Your task to perform on an android device: Open the calendar and show me this week's events? Image 0: 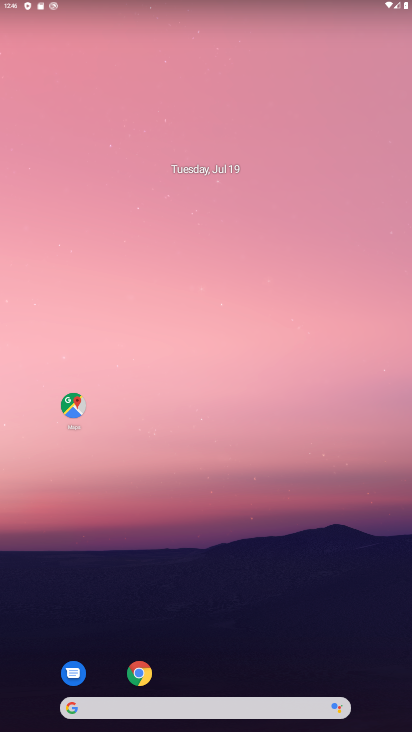
Step 0: drag from (193, 690) to (114, 17)
Your task to perform on an android device: Open the calendar and show me this week's events? Image 1: 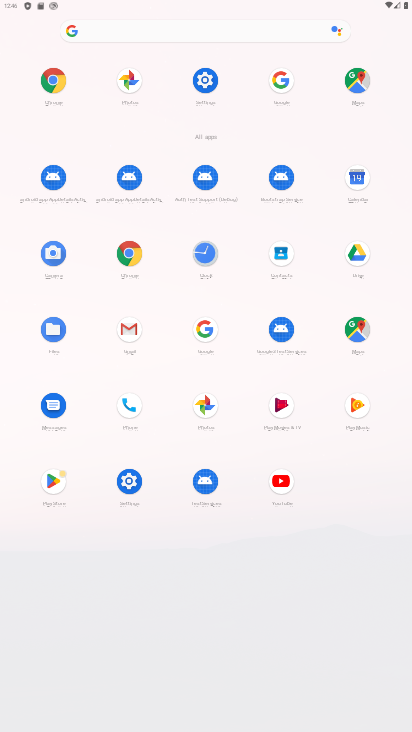
Step 1: click (352, 174)
Your task to perform on an android device: Open the calendar and show me this week's events? Image 2: 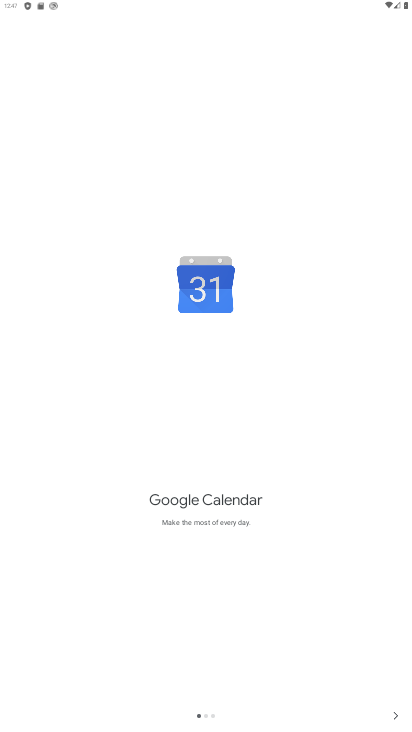
Step 2: click (395, 713)
Your task to perform on an android device: Open the calendar and show me this week's events? Image 3: 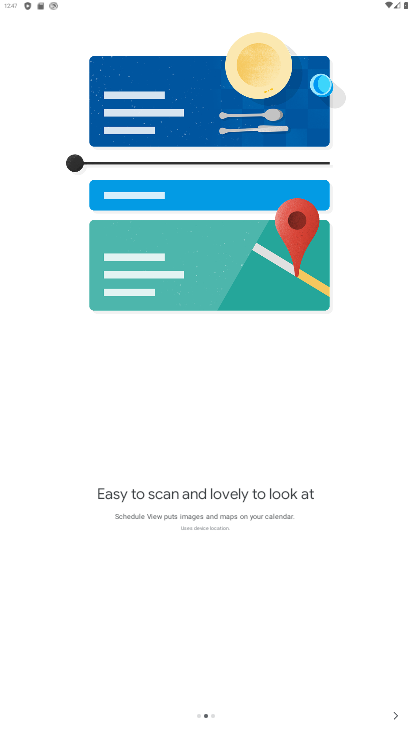
Step 3: click (393, 712)
Your task to perform on an android device: Open the calendar and show me this week's events? Image 4: 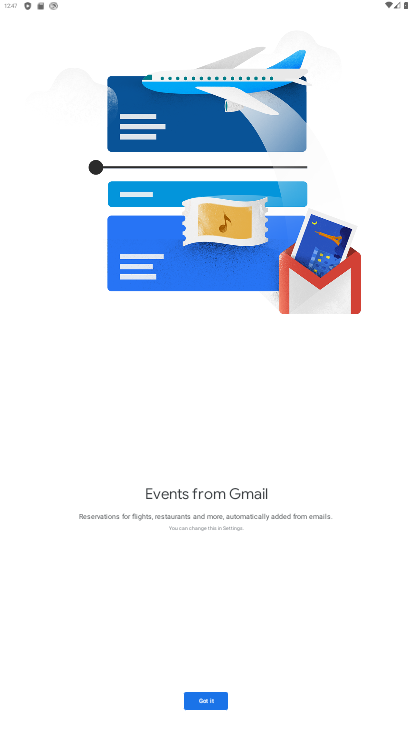
Step 4: click (198, 699)
Your task to perform on an android device: Open the calendar and show me this week's events? Image 5: 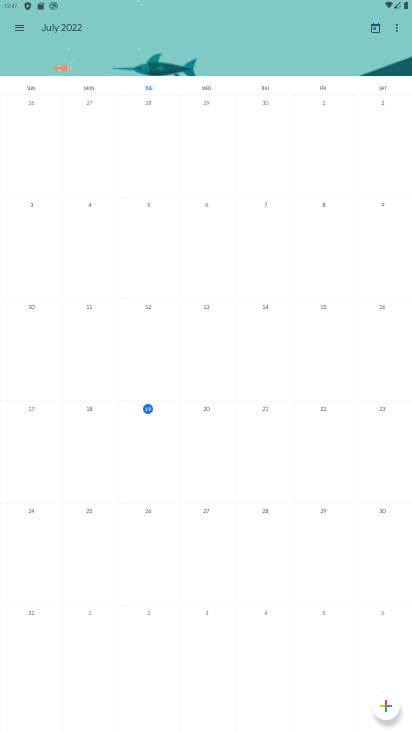
Step 5: click (19, 33)
Your task to perform on an android device: Open the calendar and show me this week's events? Image 6: 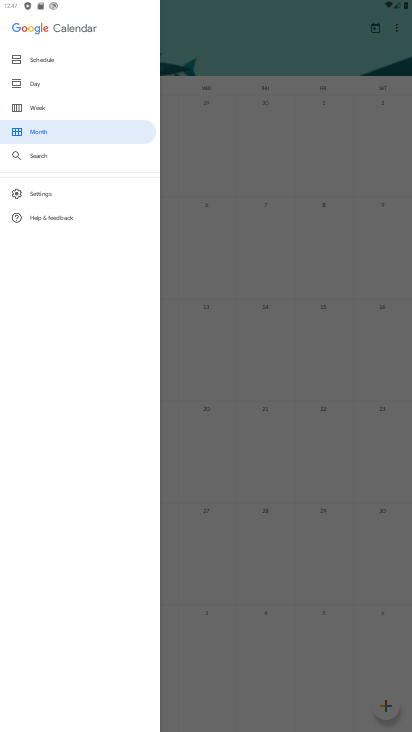
Step 6: click (47, 109)
Your task to perform on an android device: Open the calendar and show me this week's events? Image 7: 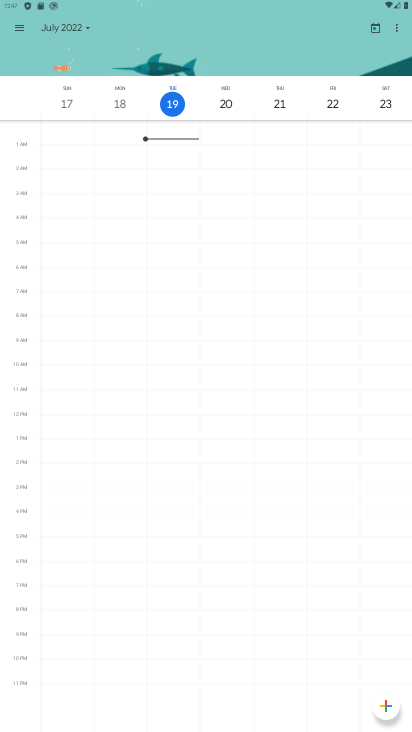
Step 7: task complete